Your task to perform on an android device: Open network settings Image 0: 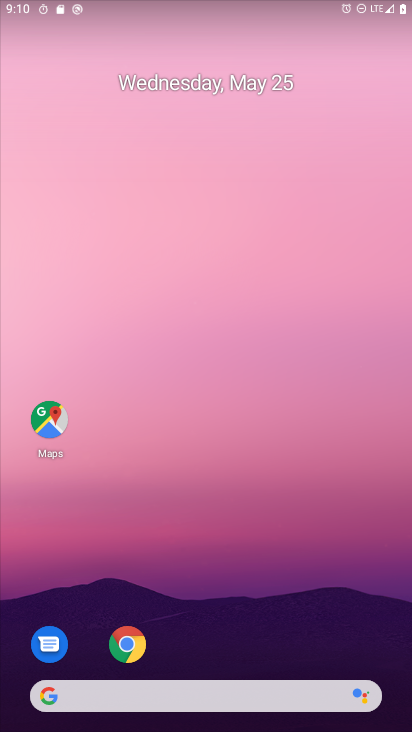
Step 0: drag from (323, 633) to (283, 48)
Your task to perform on an android device: Open network settings Image 1: 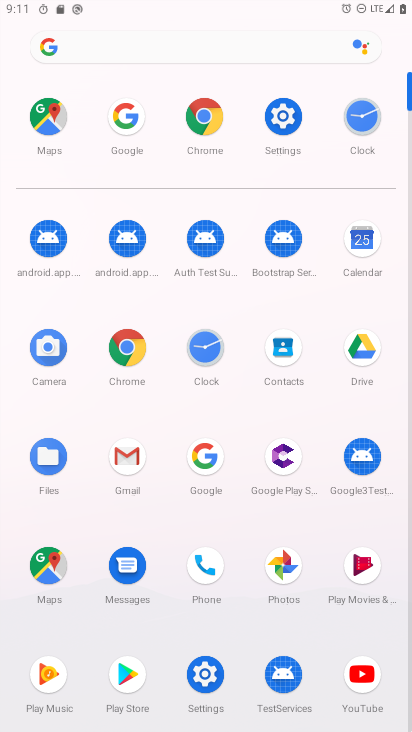
Step 1: click (215, 671)
Your task to perform on an android device: Open network settings Image 2: 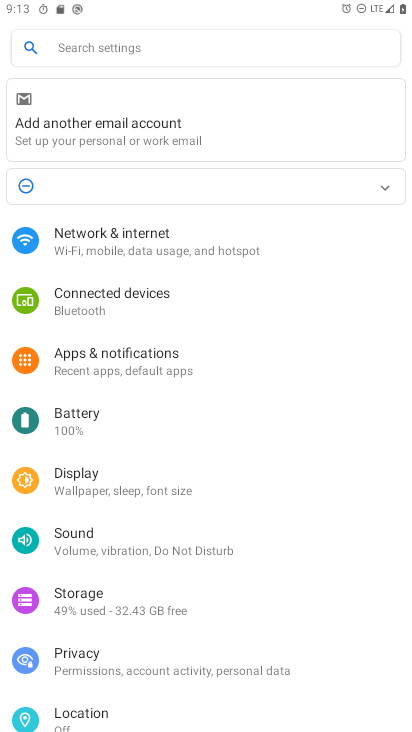
Step 2: click (182, 231)
Your task to perform on an android device: Open network settings Image 3: 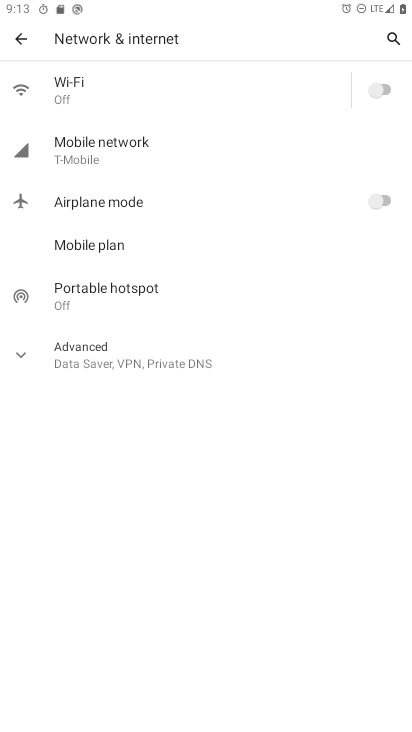
Step 3: task complete